Your task to perform on an android device: Check the latest 3D printers on Target. Image 0: 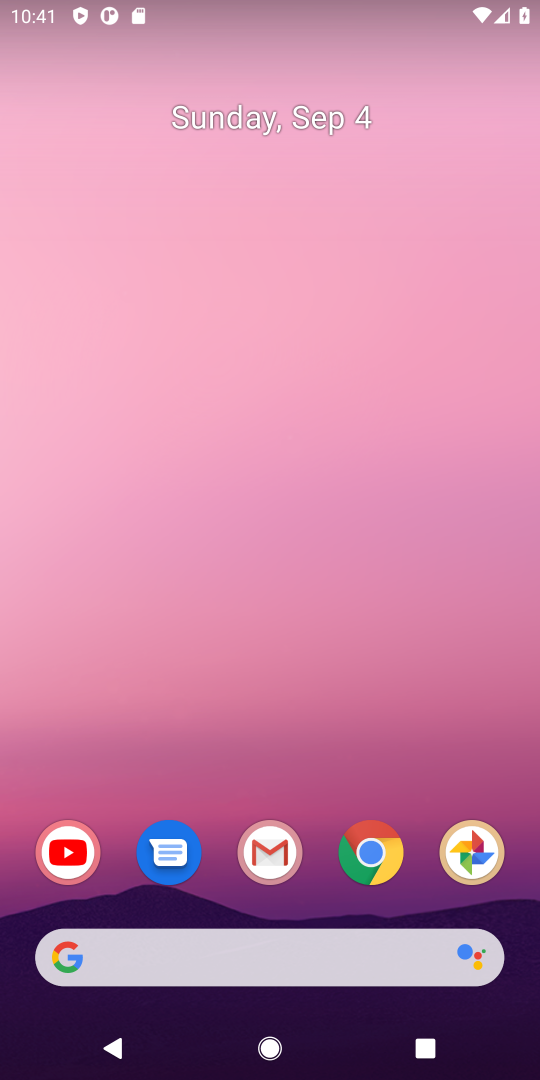
Step 0: drag from (423, 887) to (208, 5)
Your task to perform on an android device: Check the latest 3D printers on Target. Image 1: 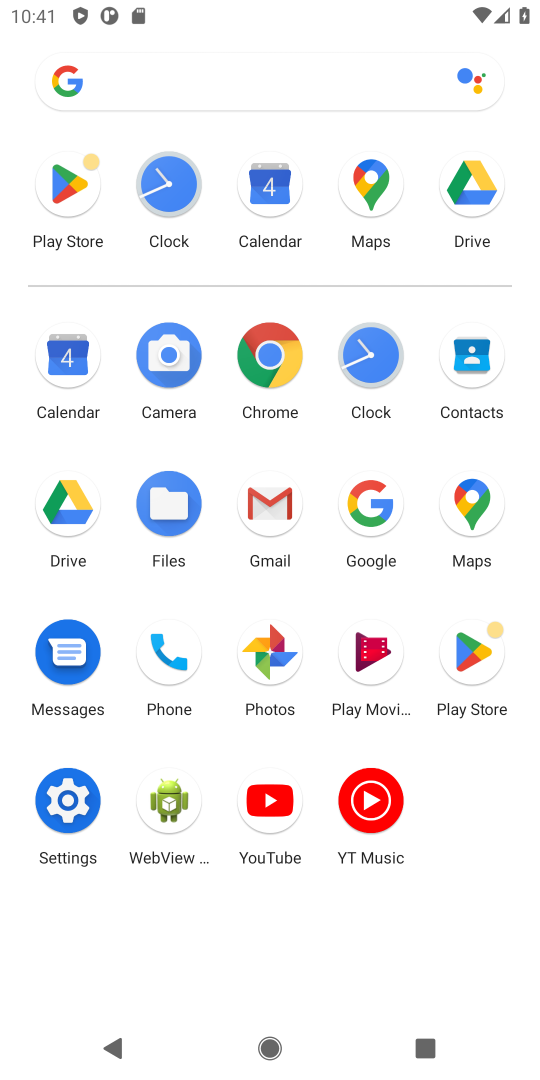
Step 1: click (382, 504)
Your task to perform on an android device: Check the latest 3D printers on Target. Image 2: 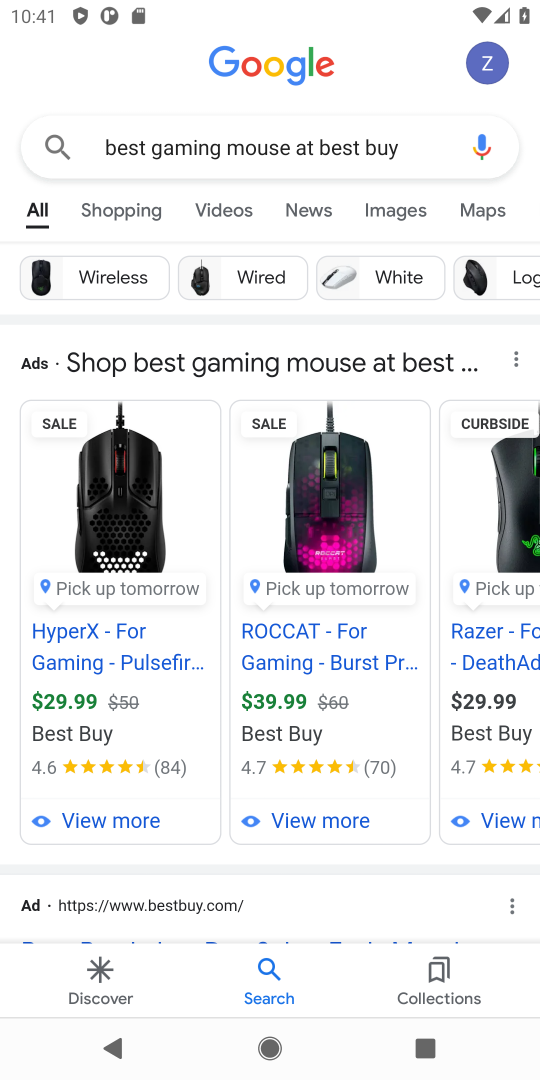
Step 2: press back button
Your task to perform on an android device: Check the latest 3D printers on Target. Image 3: 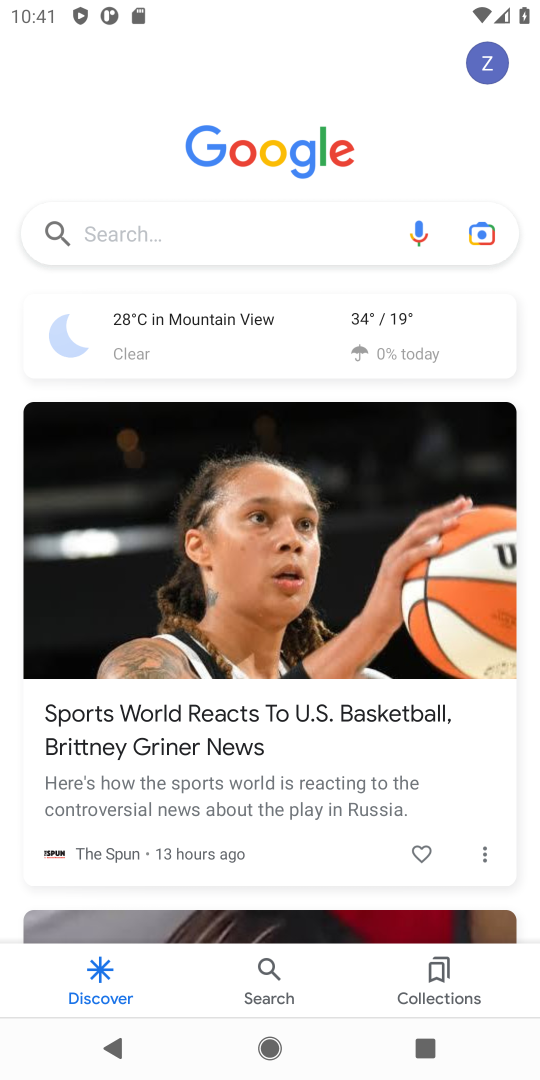
Step 3: click (175, 229)
Your task to perform on an android device: Check the latest 3D printers on Target. Image 4: 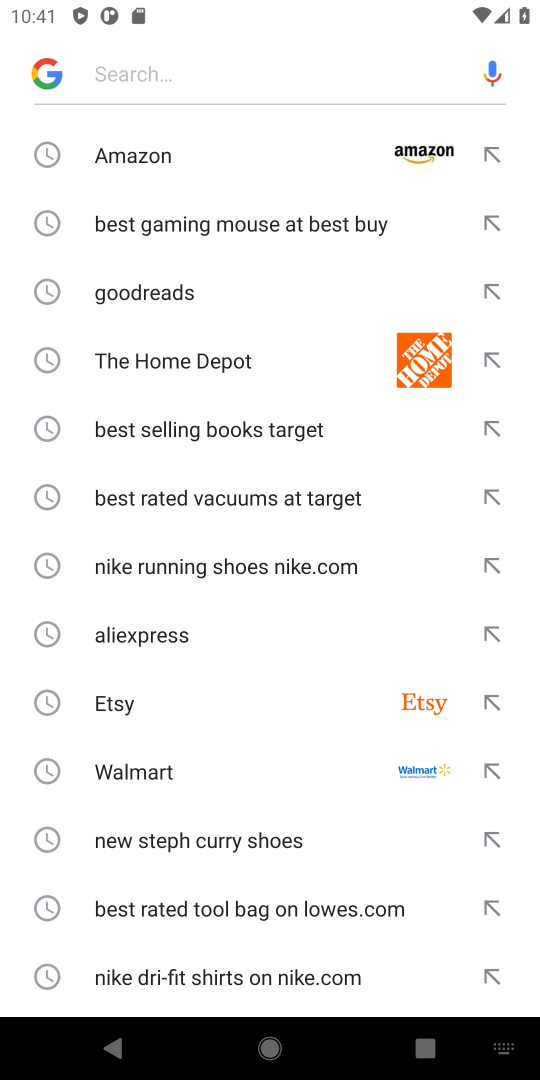
Step 4: type "3D printers on Target"
Your task to perform on an android device: Check the latest 3D printers on Target. Image 5: 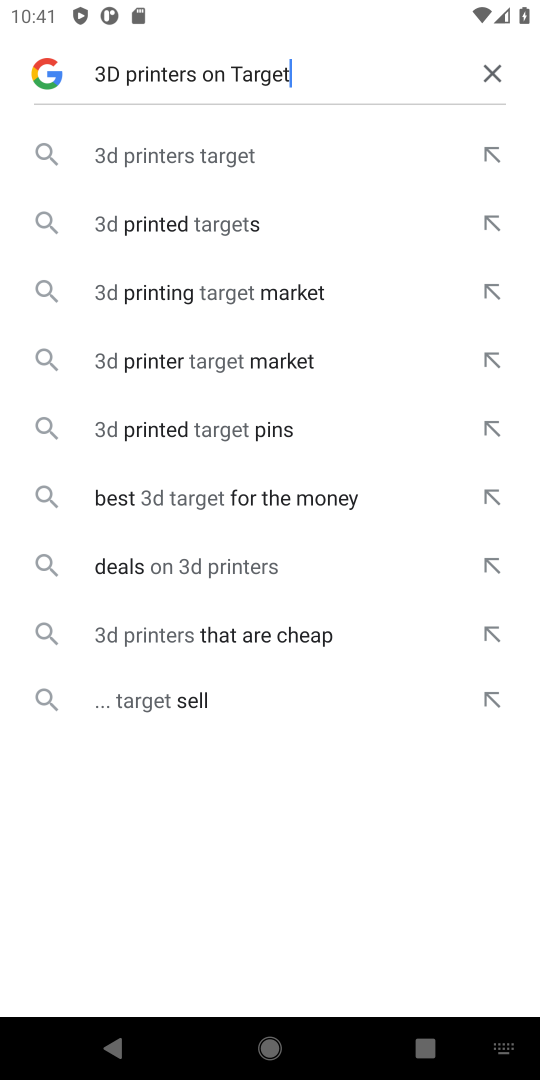
Step 5: click (194, 162)
Your task to perform on an android device: Check the latest 3D printers on Target. Image 6: 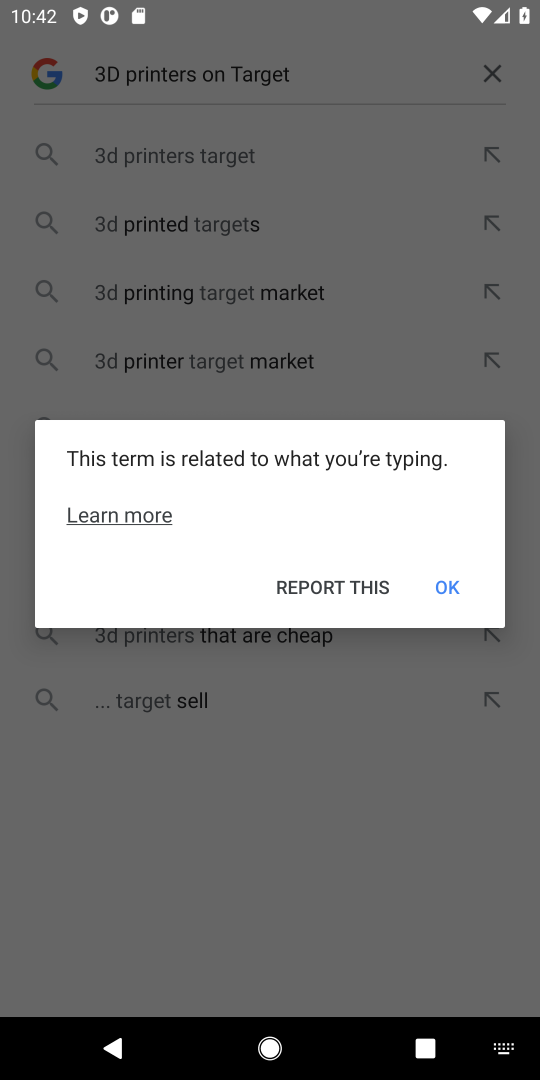
Step 6: click (472, 574)
Your task to perform on an android device: Check the latest 3D printers on Target. Image 7: 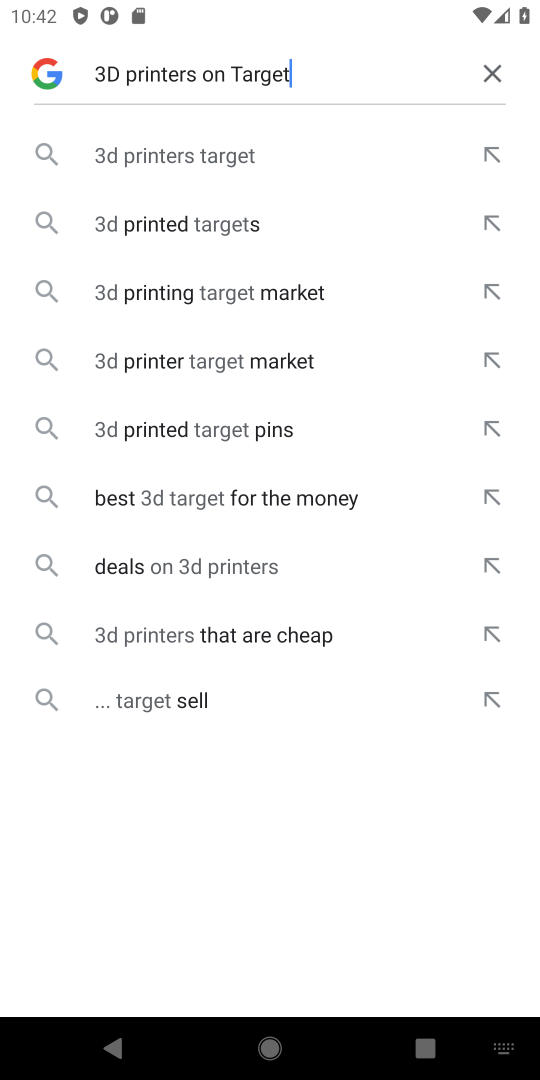
Step 7: click (209, 166)
Your task to perform on an android device: Check the latest 3D printers on Target. Image 8: 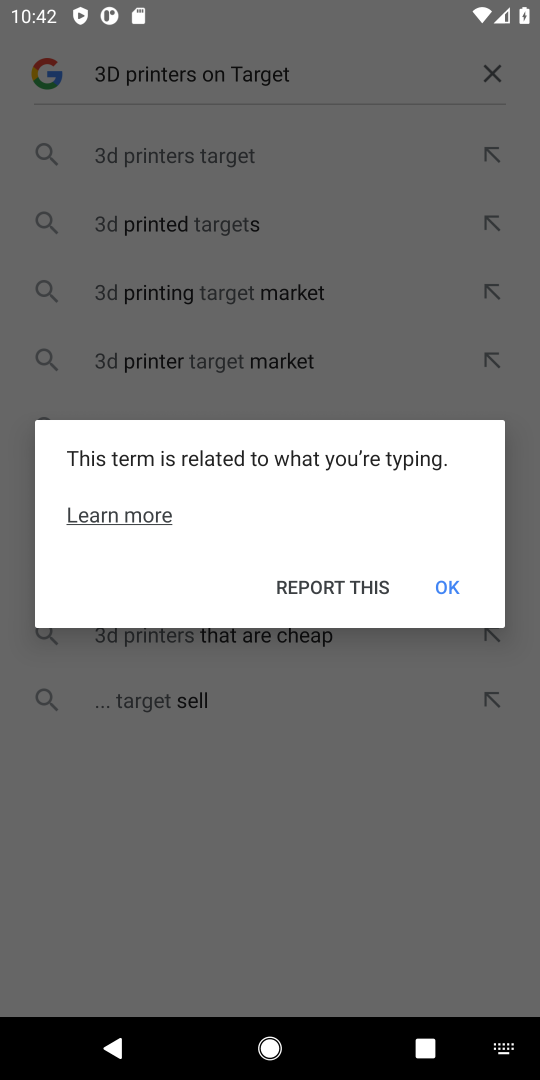
Step 8: task complete